Your task to perform on an android device: change your default location settings in chrome Image 0: 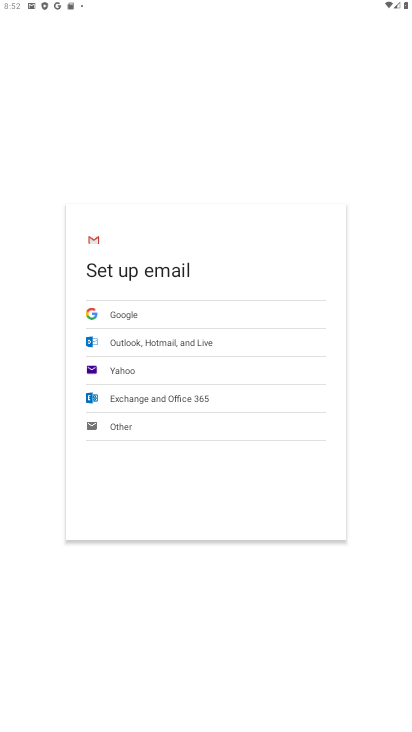
Step 0: press home button
Your task to perform on an android device: change your default location settings in chrome Image 1: 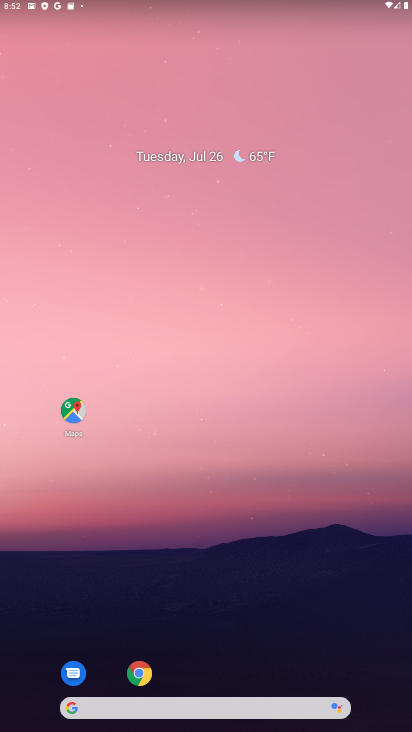
Step 1: click (137, 670)
Your task to perform on an android device: change your default location settings in chrome Image 2: 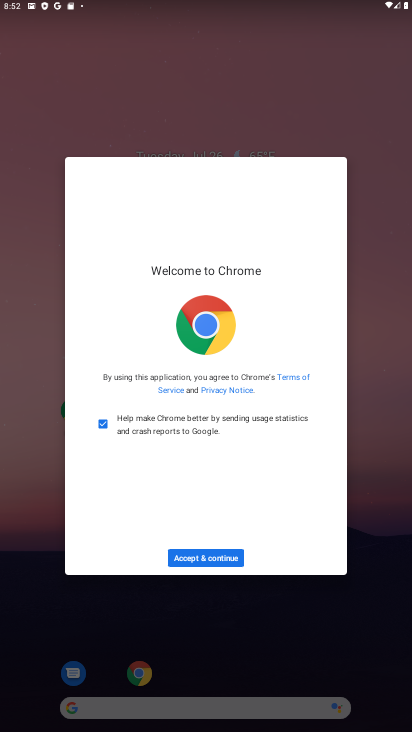
Step 2: click (208, 557)
Your task to perform on an android device: change your default location settings in chrome Image 3: 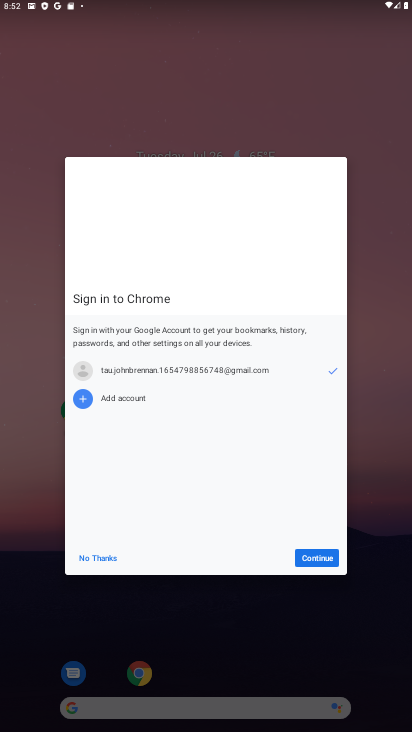
Step 3: click (320, 555)
Your task to perform on an android device: change your default location settings in chrome Image 4: 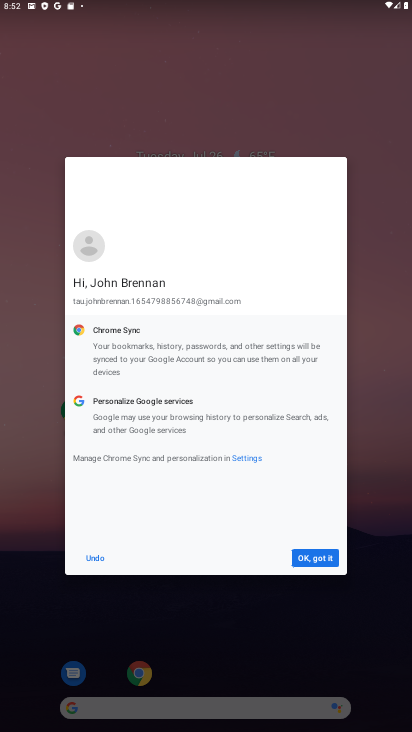
Step 4: click (318, 556)
Your task to perform on an android device: change your default location settings in chrome Image 5: 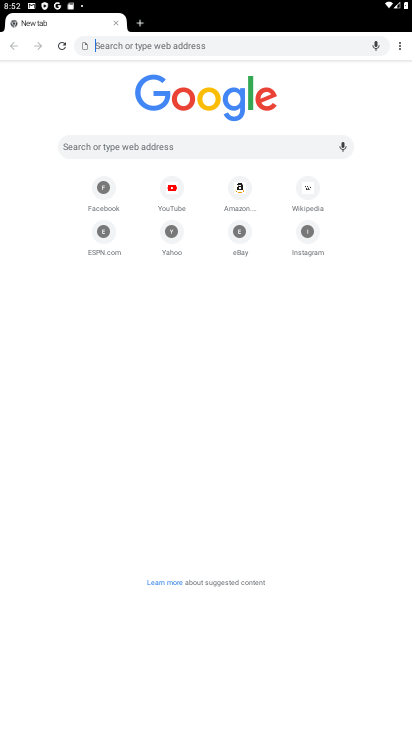
Step 5: click (398, 48)
Your task to perform on an android device: change your default location settings in chrome Image 6: 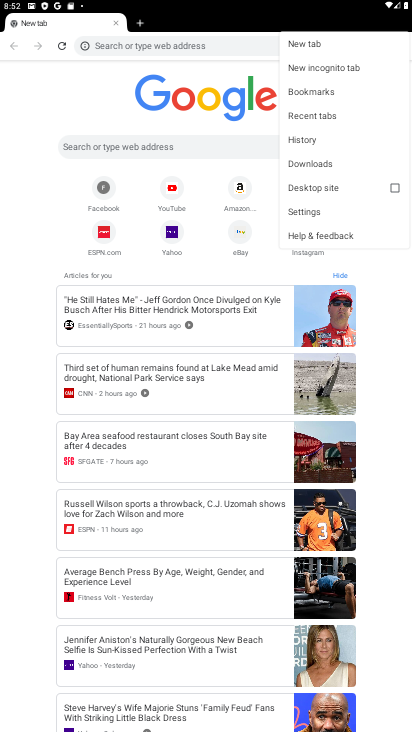
Step 6: click (304, 207)
Your task to perform on an android device: change your default location settings in chrome Image 7: 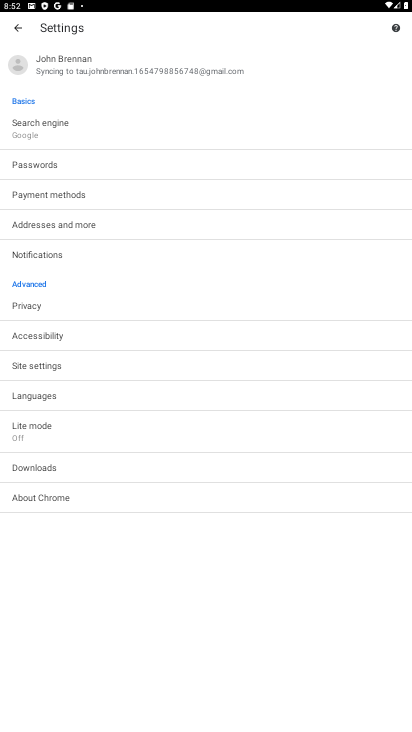
Step 7: click (24, 366)
Your task to perform on an android device: change your default location settings in chrome Image 8: 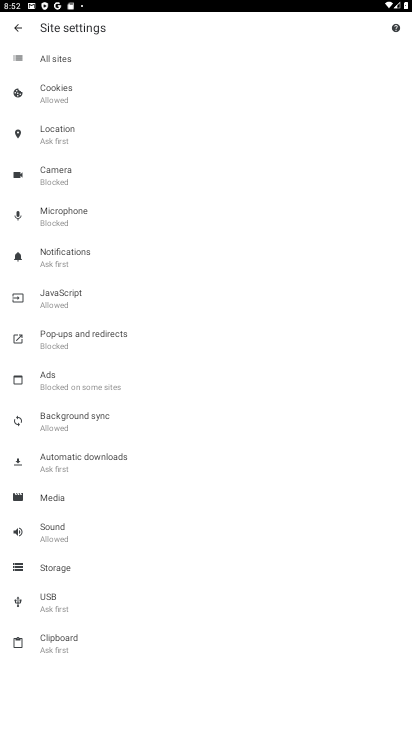
Step 8: click (54, 129)
Your task to perform on an android device: change your default location settings in chrome Image 9: 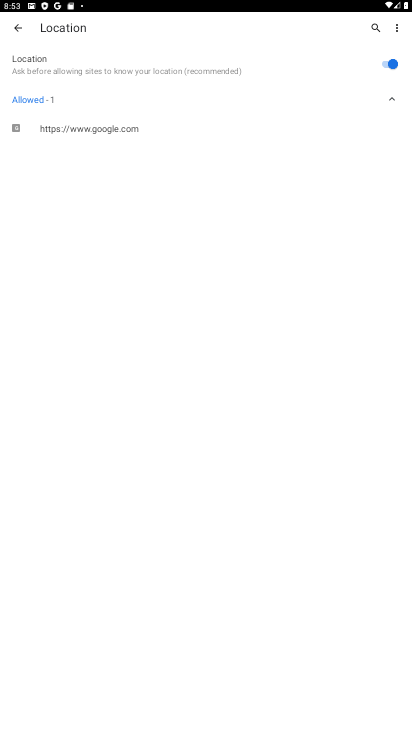
Step 9: click (384, 60)
Your task to perform on an android device: change your default location settings in chrome Image 10: 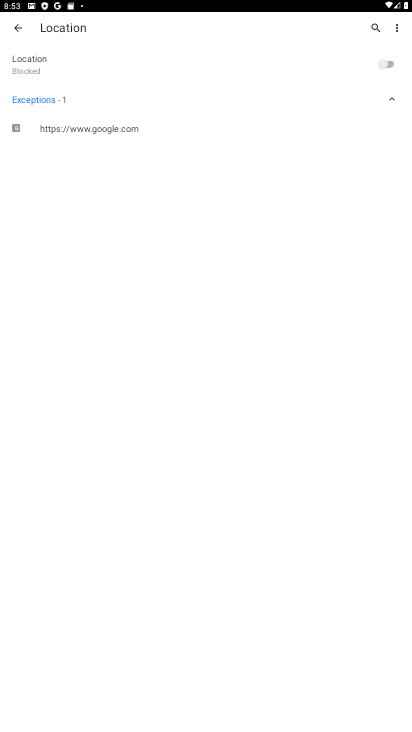
Step 10: task complete